Your task to perform on an android device: turn off location history Image 0: 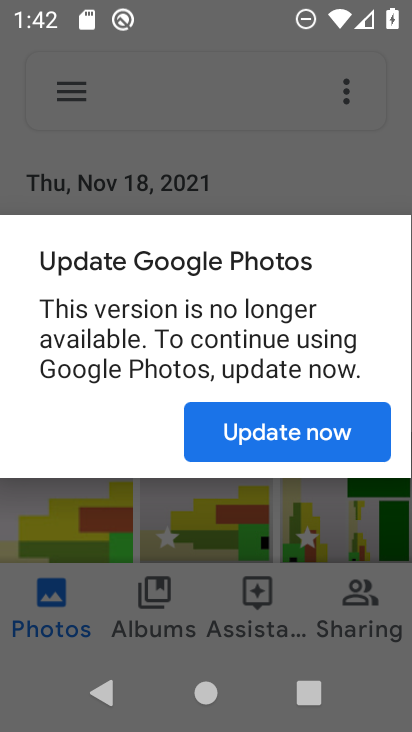
Step 0: click (410, 430)
Your task to perform on an android device: turn off location history Image 1: 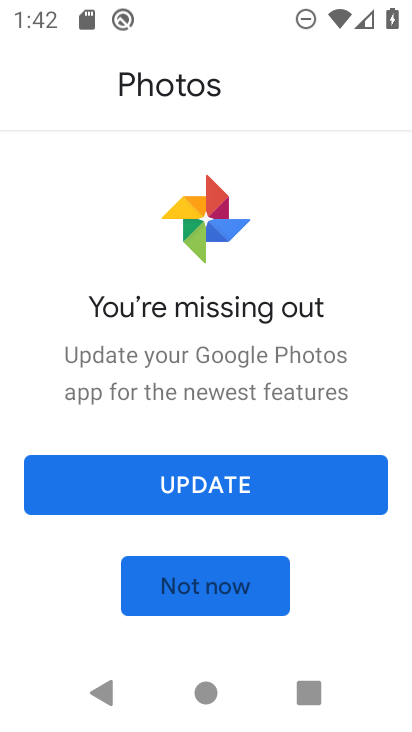
Step 1: press home button
Your task to perform on an android device: turn off location history Image 2: 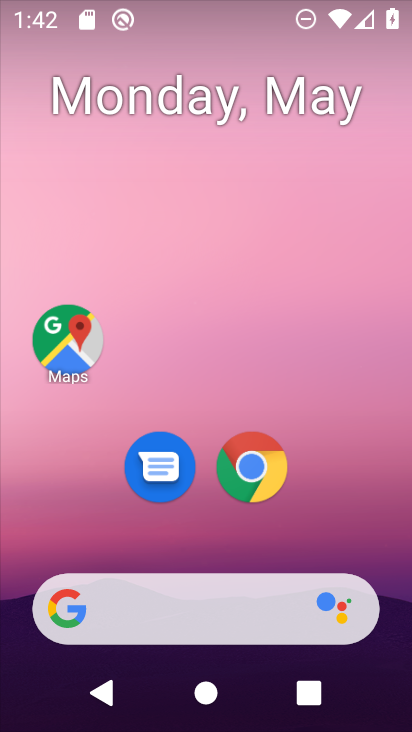
Step 2: drag from (106, 571) to (229, 41)
Your task to perform on an android device: turn off location history Image 3: 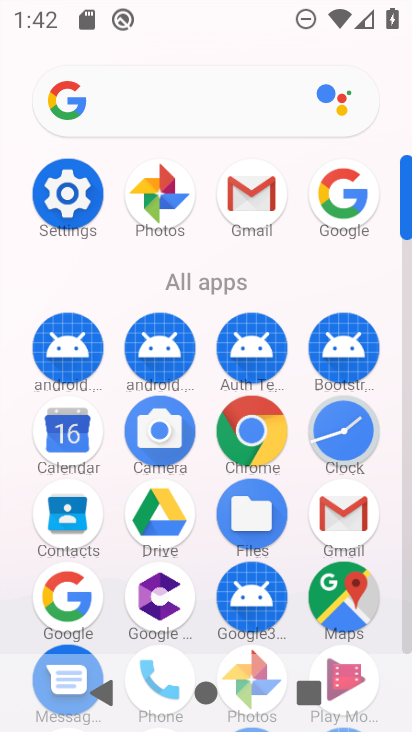
Step 3: drag from (178, 605) to (255, 326)
Your task to perform on an android device: turn off location history Image 4: 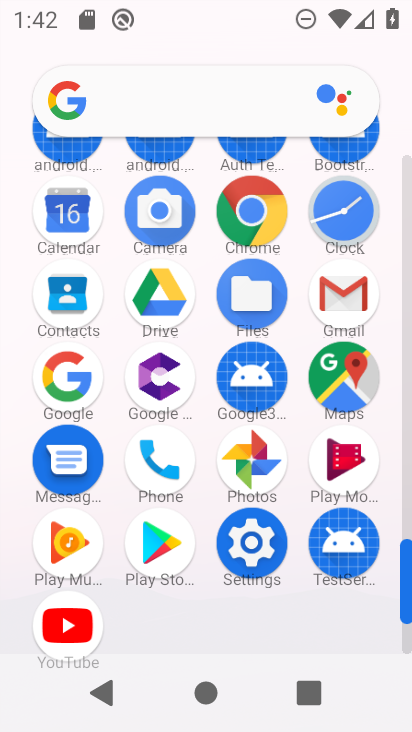
Step 4: click (246, 555)
Your task to perform on an android device: turn off location history Image 5: 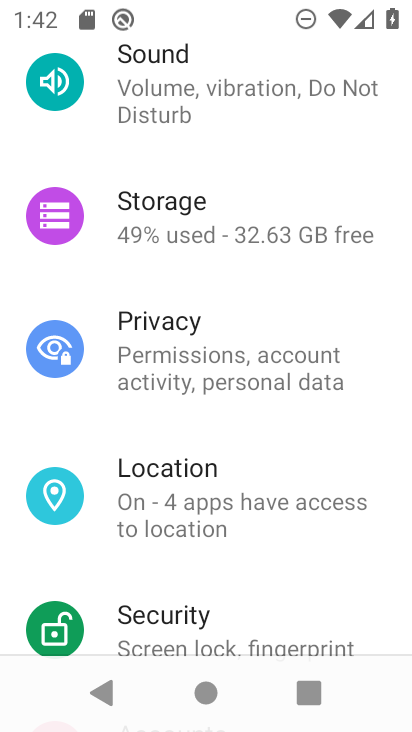
Step 5: click (177, 530)
Your task to perform on an android device: turn off location history Image 6: 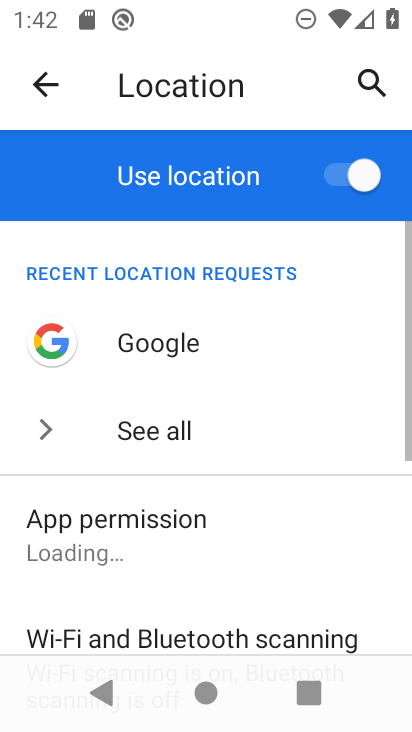
Step 6: drag from (177, 618) to (375, 172)
Your task to perform on an android device: turn off location history Image 7: 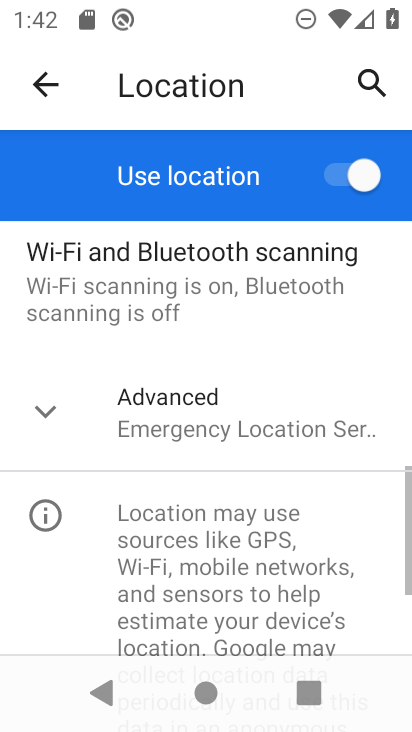
Step 7: click (228, 413)
Your task to perform on an android device: turn off location history Image 8: 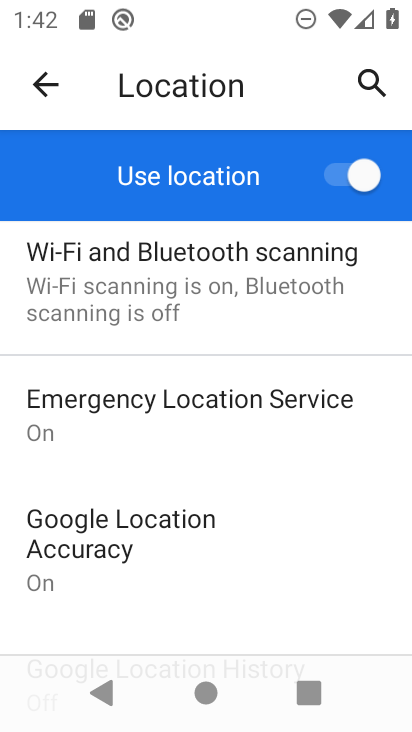
Step 8: drag from (190, 628) to (314, 372)
Your task to perform on an android device: turn off location history Image 9: 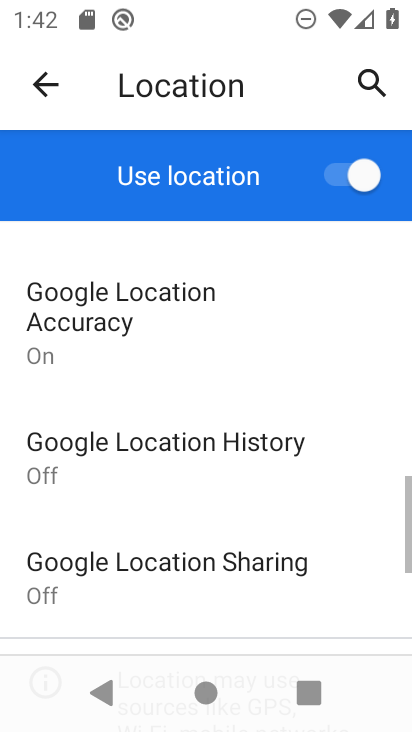
Step 9: click (266, 485)
Your task to perform on an android device: turn off location history Image 10: 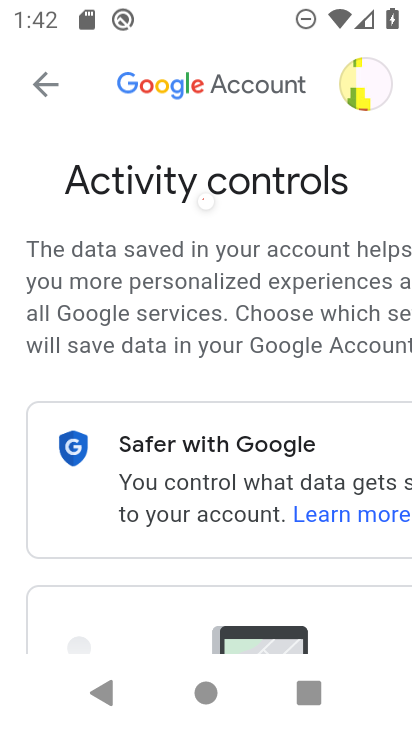
Step 10: drag from (233, 597) to (410, 144)
Your task to perform on an android device: turn off location history Image 11: 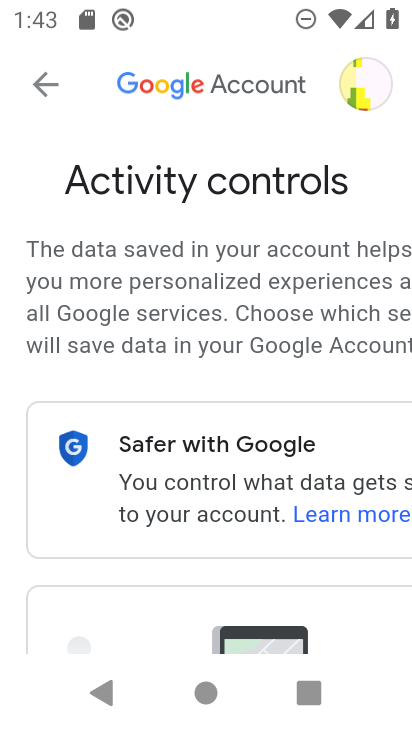
Step 11: drag from (178, 527) to (340, 105)
Your task to perform on an android device: turn off location history Image 12: 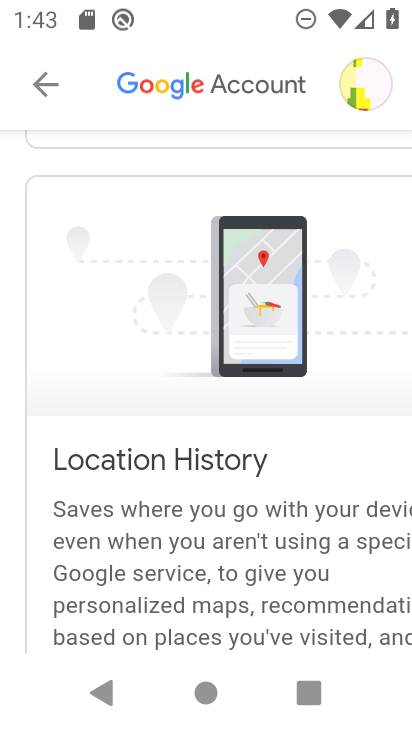
Step 12: drag from (81, 568) to (310, 0)
Your task to perform on an android device: turn off location history Image 13: 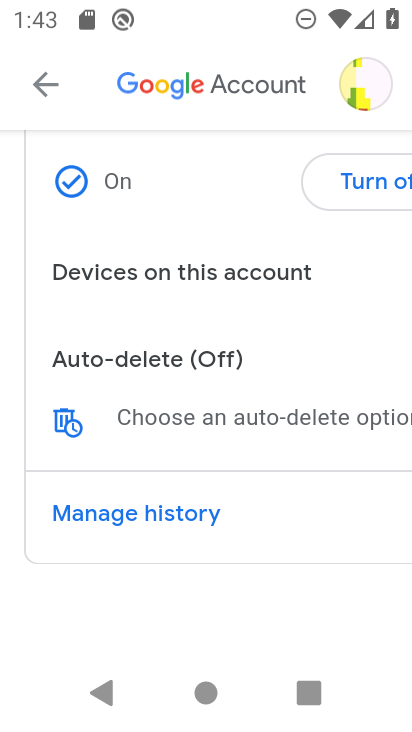
Step 13: click (367, 173)
Your task to perform on an android device: turn off location history Image 14: 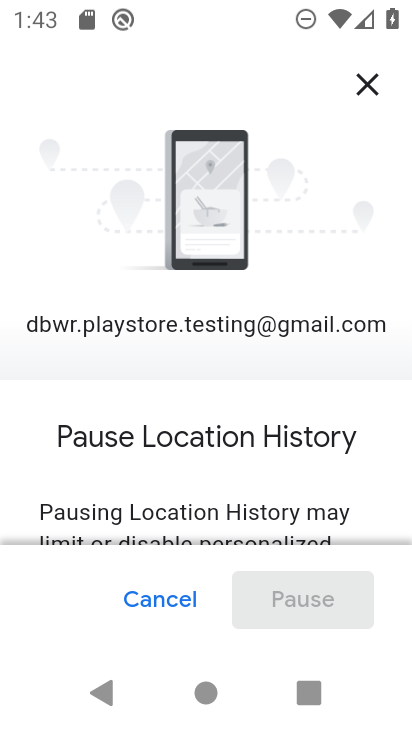
Step 14: drag from (199, 523) to (355, 81)
Your task to perform on an android device: turn off location history Image 15: 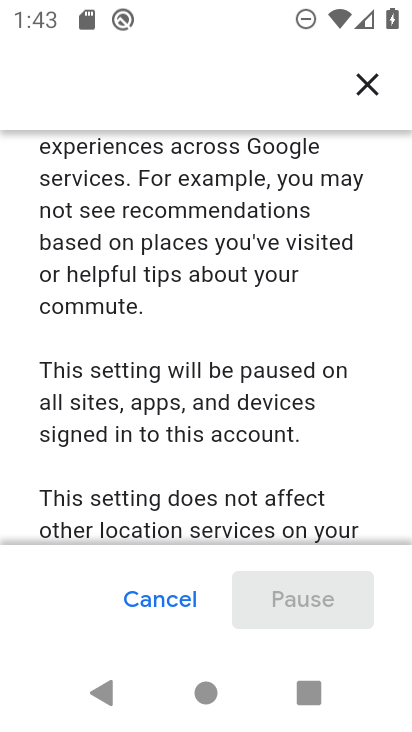
Step 15: drag from (214, 520) to (353, 160)
Your task to perform on an android device: turn off location history Image 16: 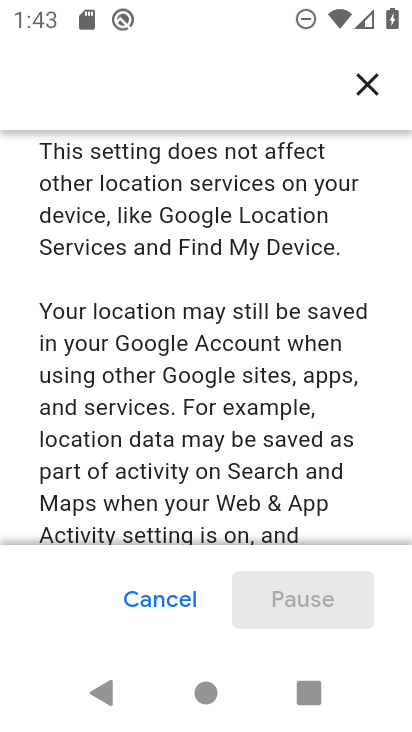
Step 16: drag from (195, 586) to (357, 138)
Your task to perform on an android device: turn off location history Image 17: 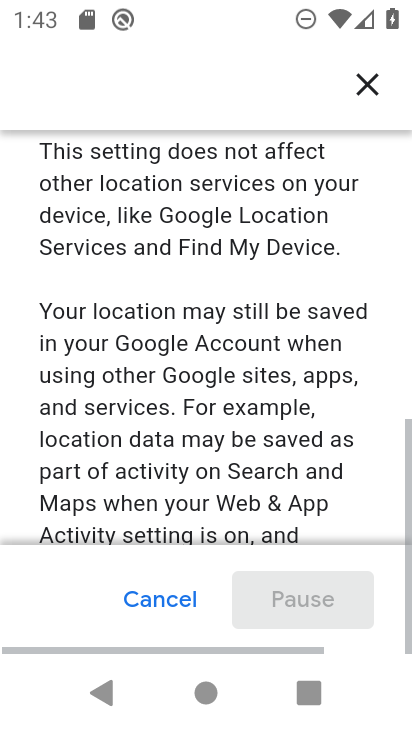
Step 17: drag from (222, 487) to (358, 94)
Your task to perform on an android device: turn off location history Image 18: 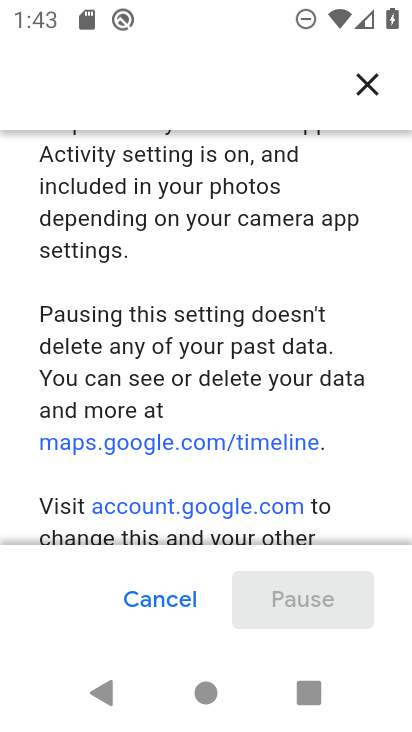
Step 18: drag from (223, 432) to (337, 136)
Your task to perform on an android device: turn off location history Image 19: 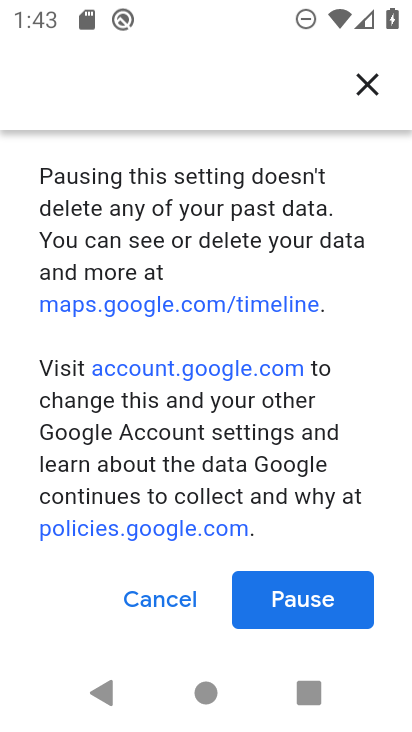
Step 19: drag from (228, 502) to (286, 365)
Your task to perform on an android device: turn off location history Image 20: 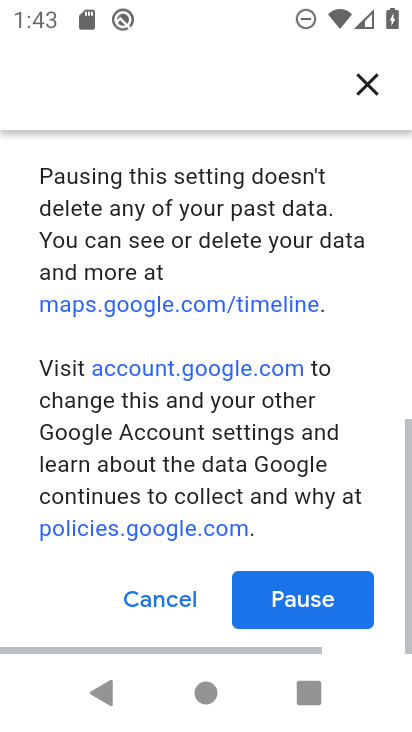
Step 20: click (291, 618)
Your task to perform on an android device: turn off location history Image 21: 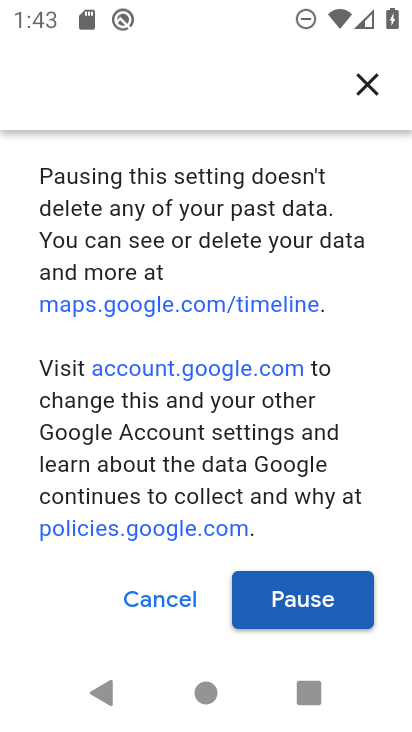
Step 21: click (331, 598)
Your task to perform on an android device: turn off location history Image 22: 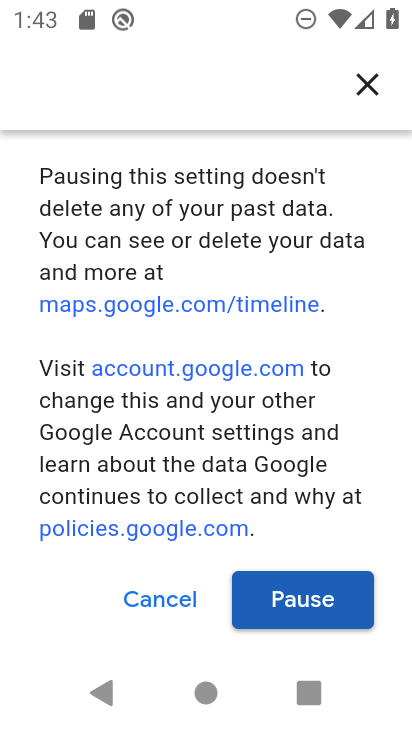
Step 22: click (323, 597)
Your task to perform on an android device: turn off location history Image 23: 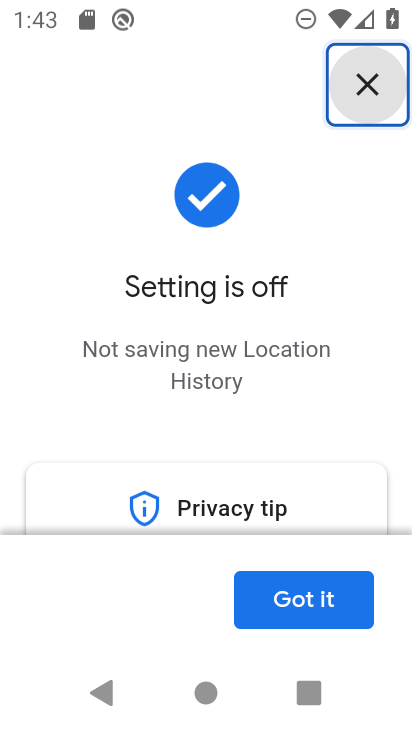
Step 23: click (313, 608)
Your task to perform on an android device: turn off location history Image 24: 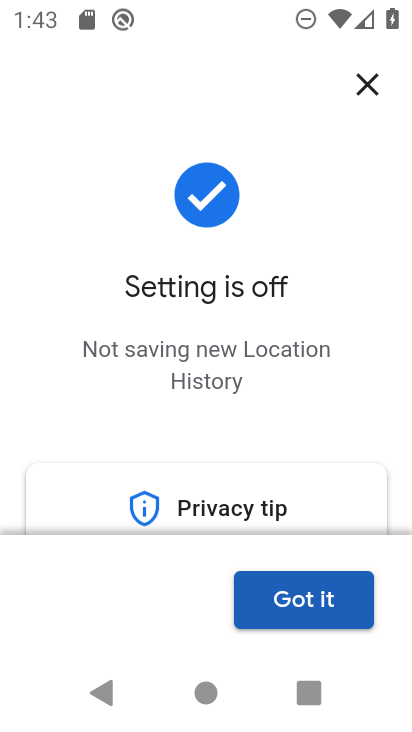
Step 24: click (309, 621)
Your task to perform on an android device: turn off location history Image 25: 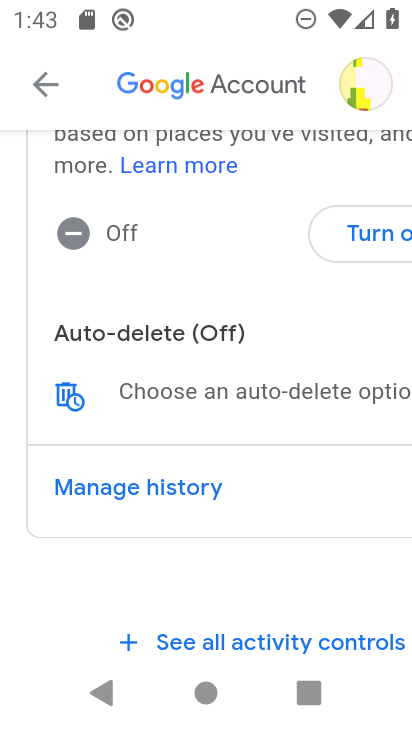
Step 25: task complete